Your task to perform on an android device: check android version Image 0: 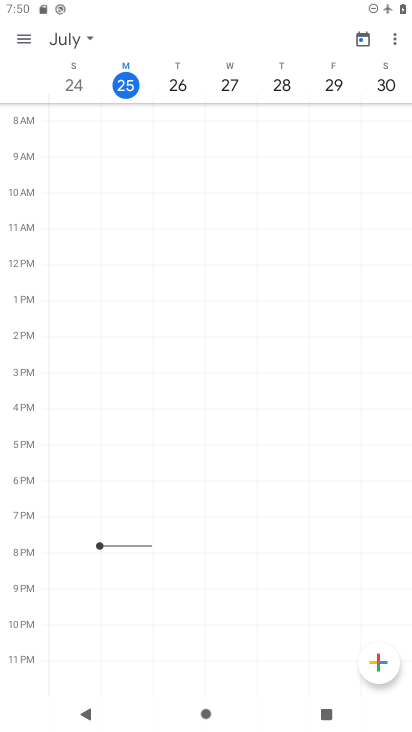
Step 0: press home button
Your task to perform on an android device: check android version Image 1: 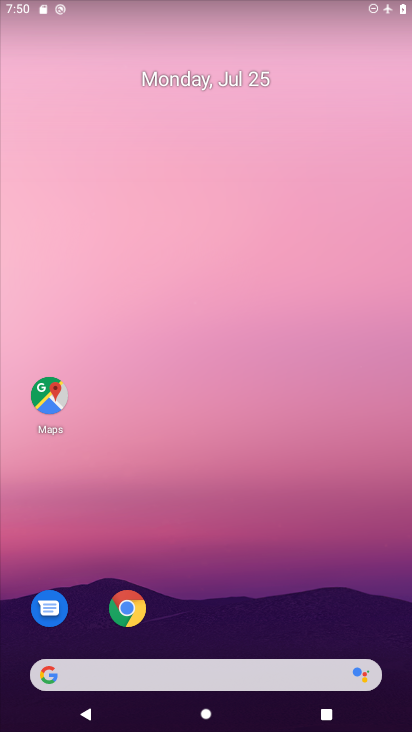
Step 1: drag from (289, 625) to (126, 62)
Your task to perform on an android device: check android version Image 2: 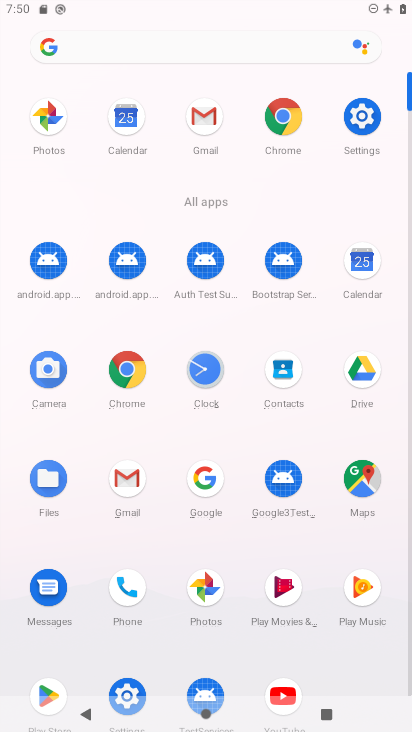
Step 2: click (366, 116)
Your task to perform on an android device: check android version Image 3: 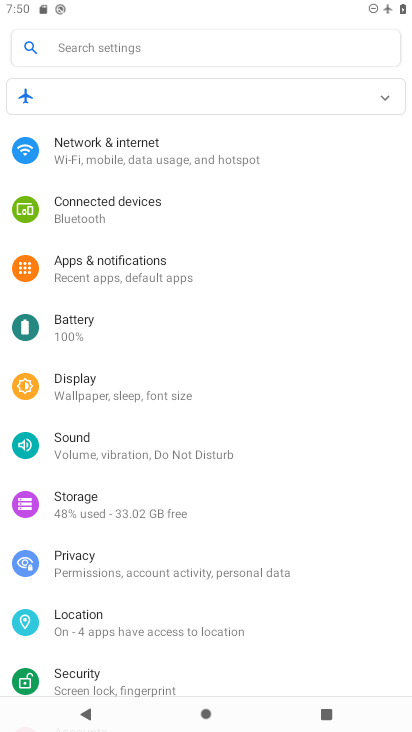
Step 3: drag from (216, 623) to (174, 131)
Your task to perform on an android device: check android version Image 4: 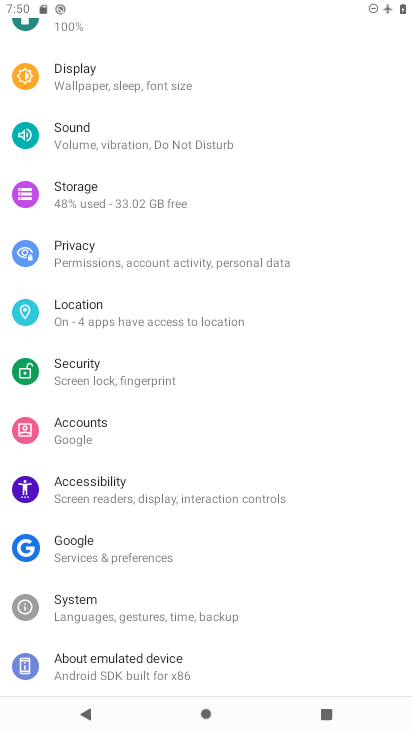
Step 4: click (116, 664)
Your task to perform on an android device: check android version Image 5: 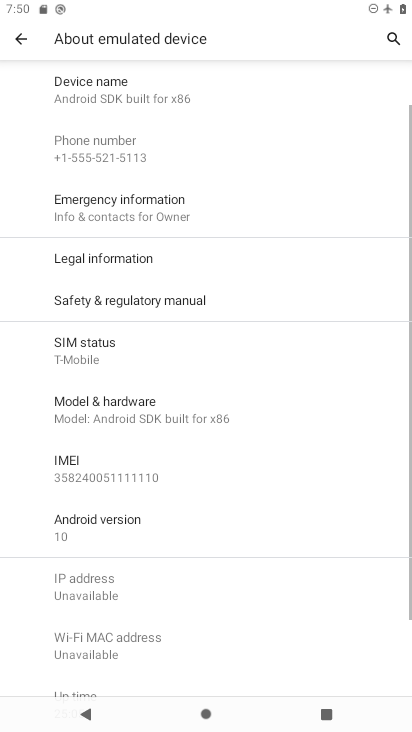
Step 5: drag from (186, 594) to (188, 12)
Your task to perform on an android device: check android version Image 6: 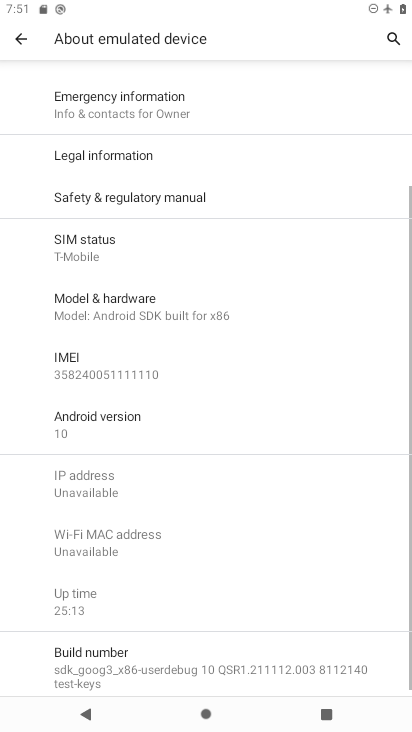
Step 6: click (121, 412)
Your task to perform on an android device: check android version Image 7: 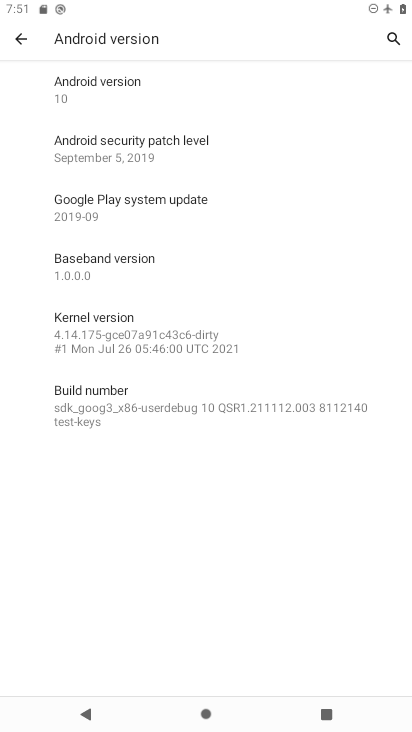
Step 7: click (117, 87)
Your task to perform on an android device: check android version Image 8: 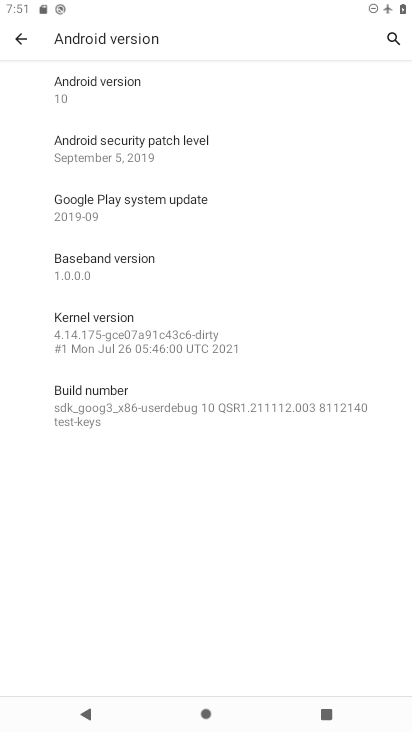
Step 8: task complete